Your task to perform on an android device: create a new album in the google photos Image 0: 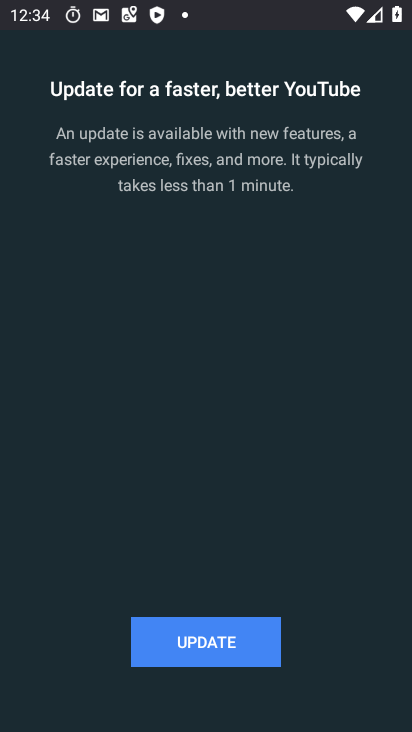
Step 0: press home button
Your task to perform on an android device: create a new album in the google photos Image 1: 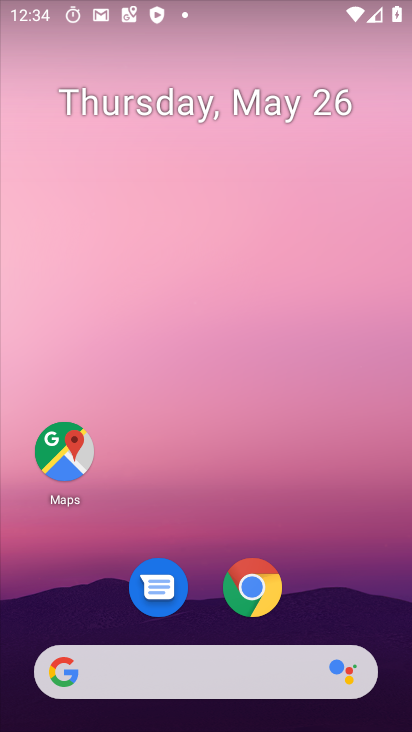
Step 1: drag from (239, 689) to (256, 124)
Your task to perform on an android device: create a new album in the google photos Image 2: 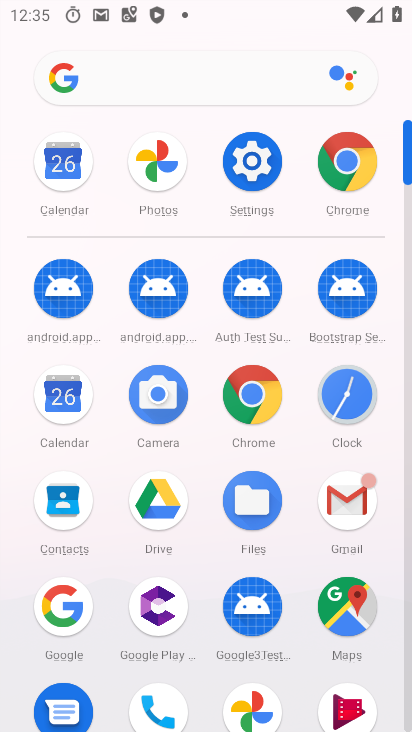
Step 2: click (257, 680)
Your task to perform on an android device: create a new album in the google photos Image 3: 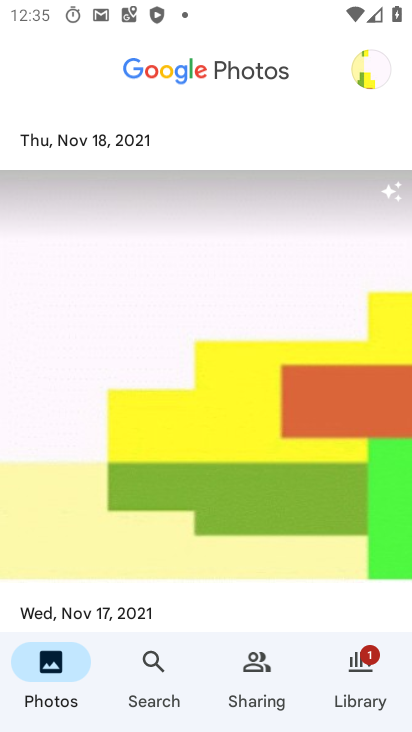
Step 3: click (315, 323)
Your task to perform on an android device: create a new album in the google photos Image 4: 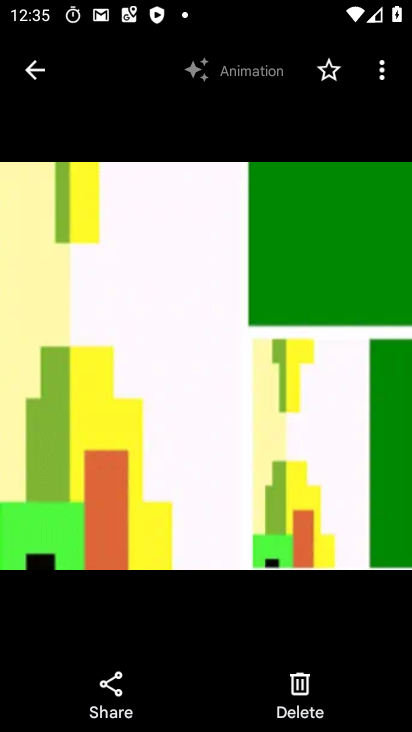
Step 4: click (384, 77)
Your task to perform on an android device: create a new album in the google photos Image 5: 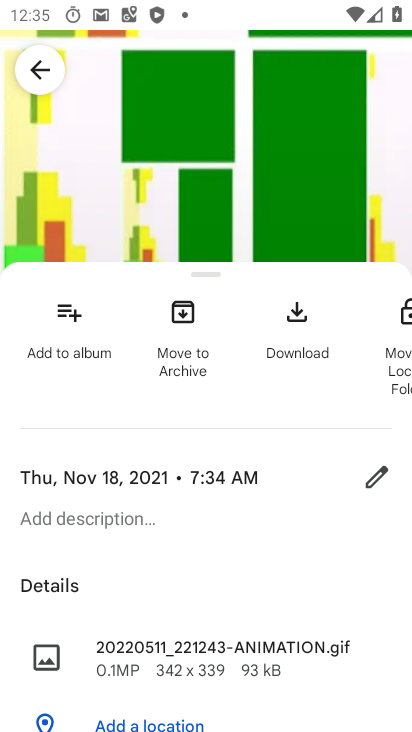
Step 5: click (63, 325)
Your task to perform on an android device: create a new album in the google photos Image 6: 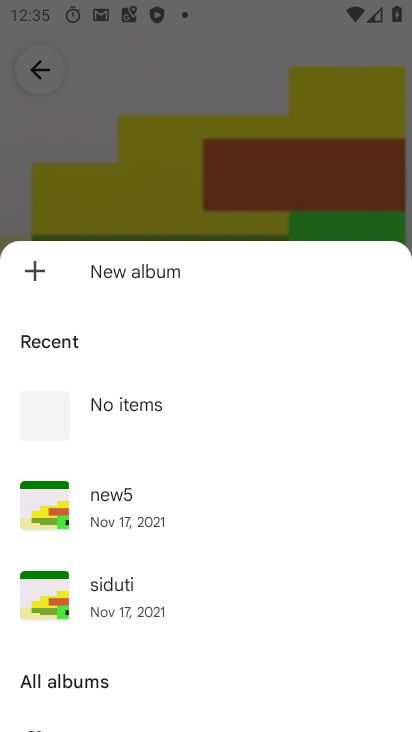
Step 6: click (126, 275)
Your task to perform on an android device: create a new album in the google photos Image 7: 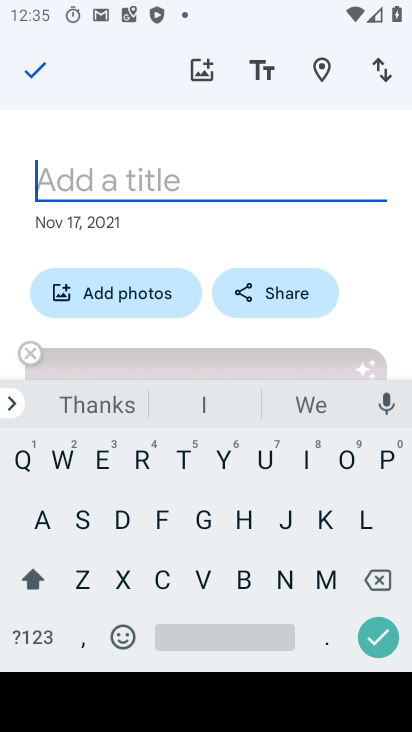
Step 7: click (121, 178)
Your task to perform on an android device: create a new album in the google photos Image 8: 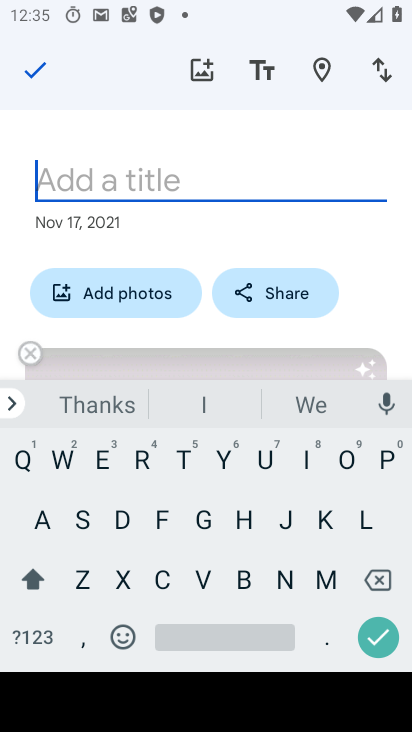
Step 8: click (228, 477)
Your task to perform on an android device: create a new album in the google photos Image 9: 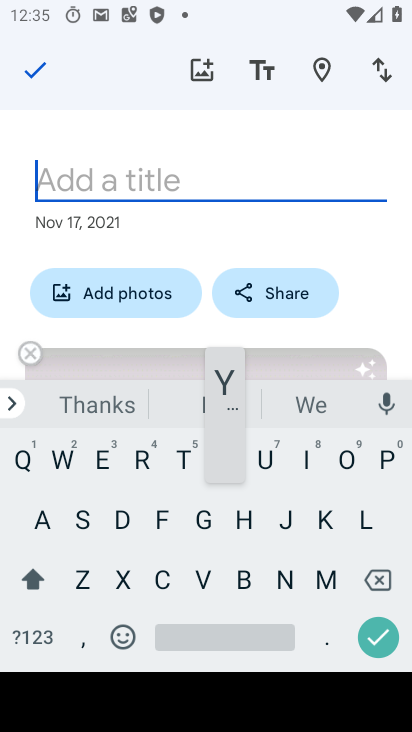
Step 9: click (167, 528)
Your task to perform on an android device: create a new album in the google photos Image 10: 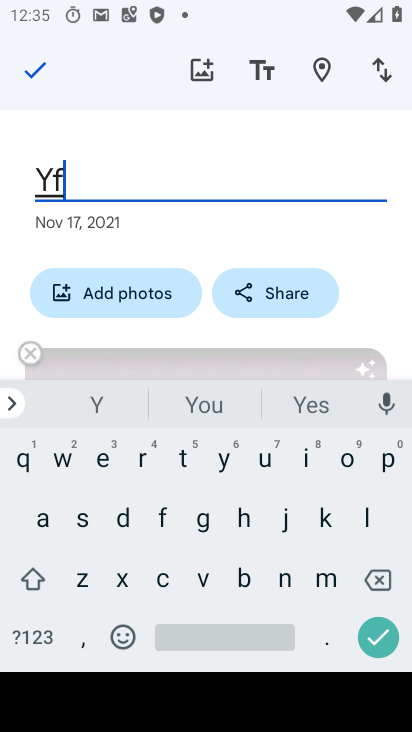
Step 10: click (106, 522)
Your task to perform on an android device: create a new album in the google photos Image 11: 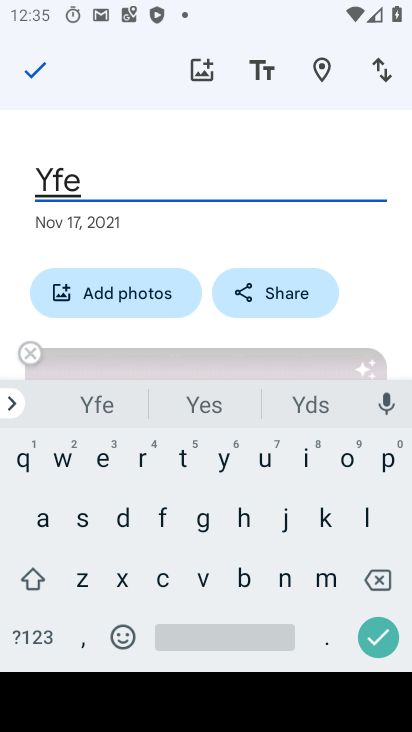
Step 11: click (33, 65)
Your task to perform on an android device: create a new album in the google photos Image 12: 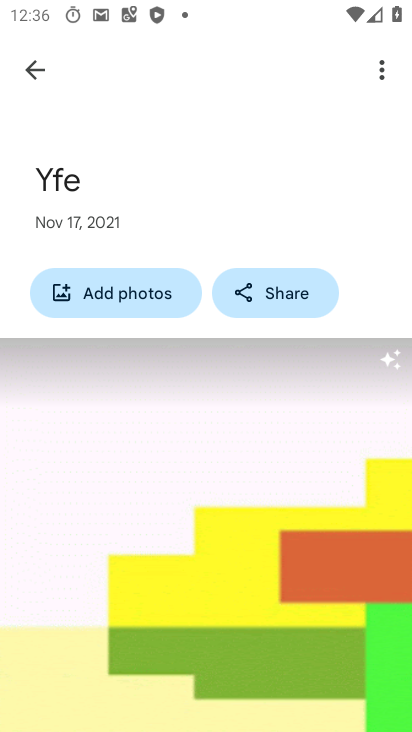
Step 12: task complete